Your task to perform on an android device: Search for lenovo thinkpad on bestbuy.com, select the first entry, add it to the cart, then select checkout. Image 0: 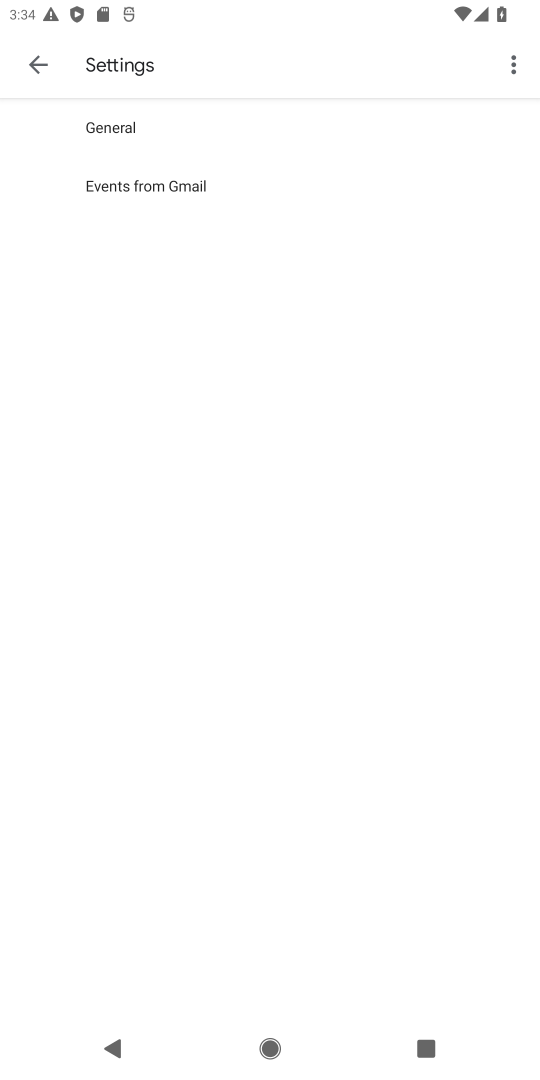
Step 0: press home button
Your task to perform on an android device: Search for lenovo thinkpad on bestbuy.com, select the first entry, add it to the cart, then select checkout. Image 1: 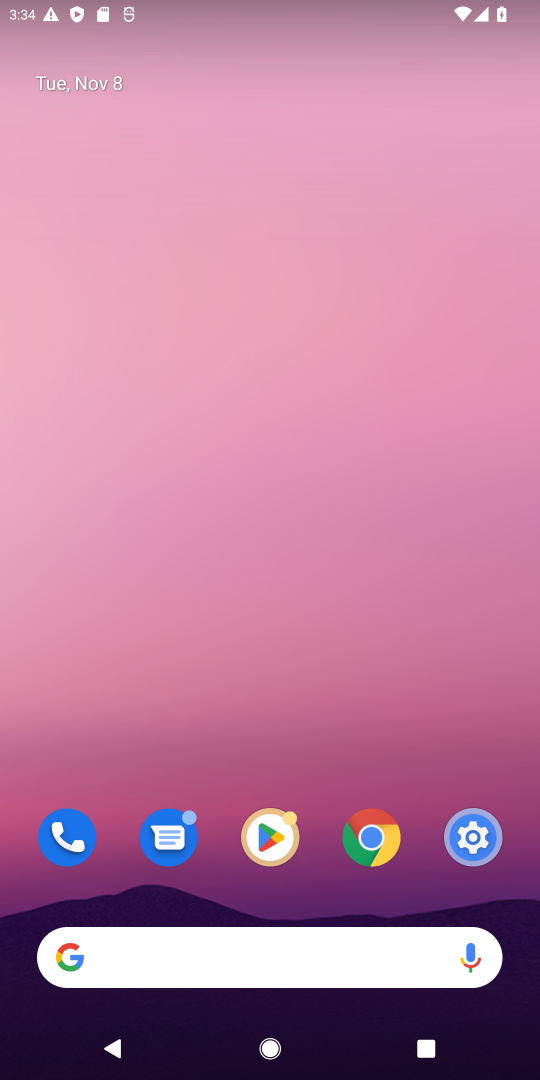
Step 1: click (381, 830)
Your task to perform on an android device: Search for lenovo thinkpad on bestbuy.com, select the first entry, add it to the cart, then select checkout. Image 2: 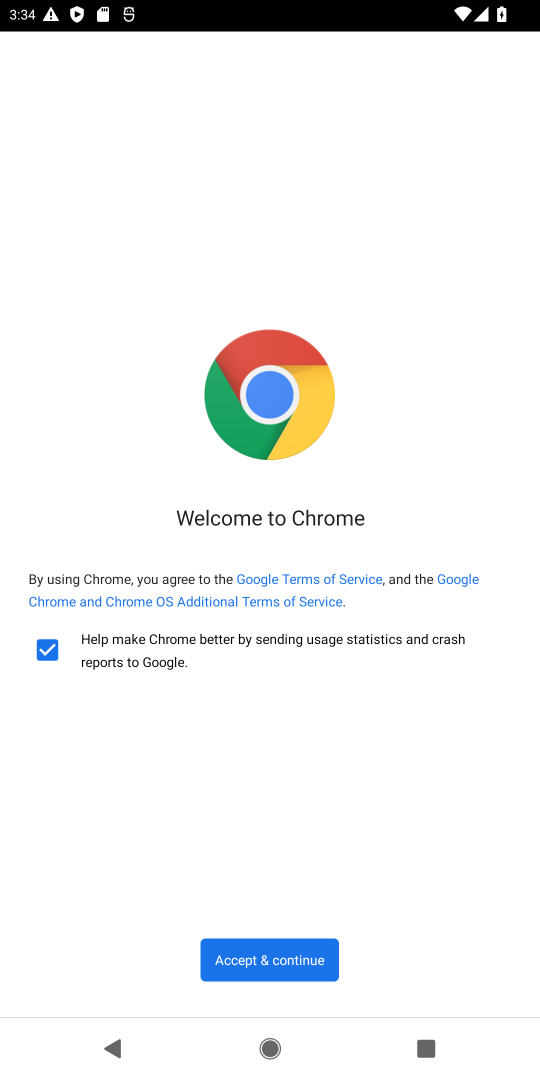
Step 2: click (242, 958)
Your task to perform on an android device: Search for lenovo thinkpad on bestbuy.com, select the first entry, add it to the cart, then select checkout. Image 3: 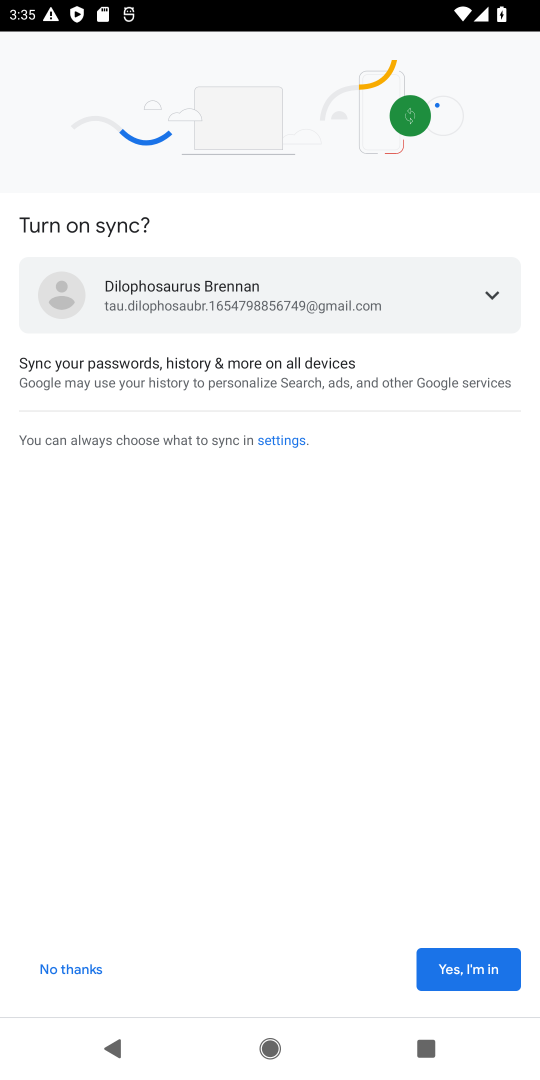
Step 3: click (496, 968)
Your task to perform on an android device: Search for lenovo thinkpad on bestbuy.com, select the first entry, add it to the cart, then select checkout. Image 4: 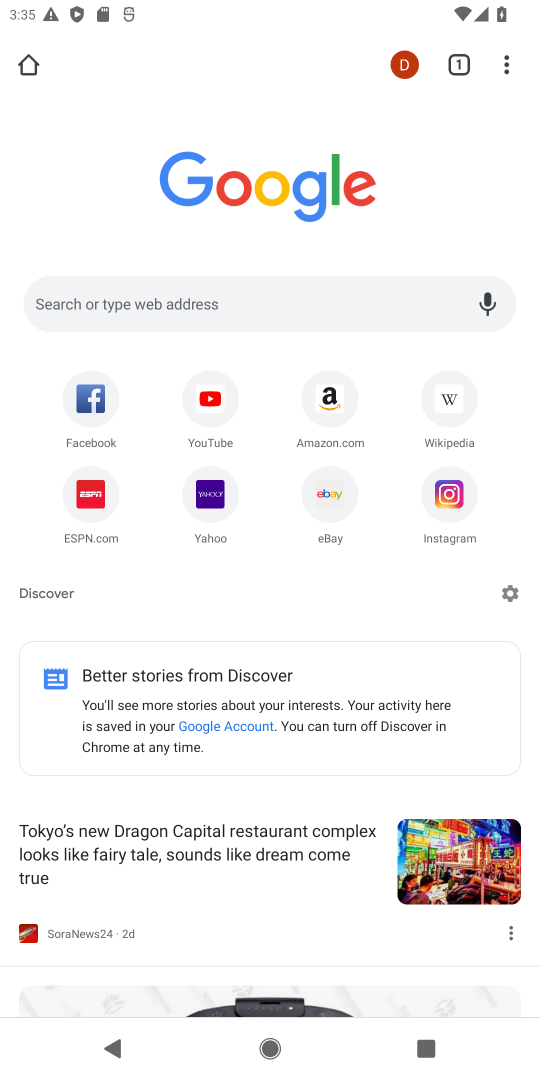
Step 4: click (214, 307)
Your task to perform on an android device: Search for lenovo thinkpad on bestbuy.com, select the first entry, add it to the cart, then select checkout. Image 5: 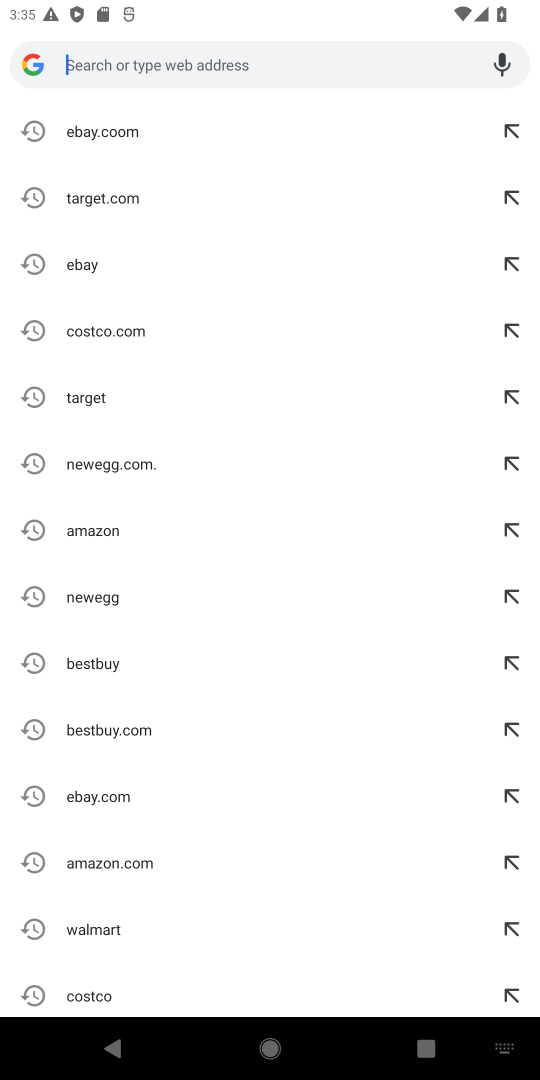
Step 5: click (91, 657)
Your task to perform on an android device: Search for lenovo thinkpad on bestbuy.com, select the first entry, add it to the cart, then select checkout. Image 6: 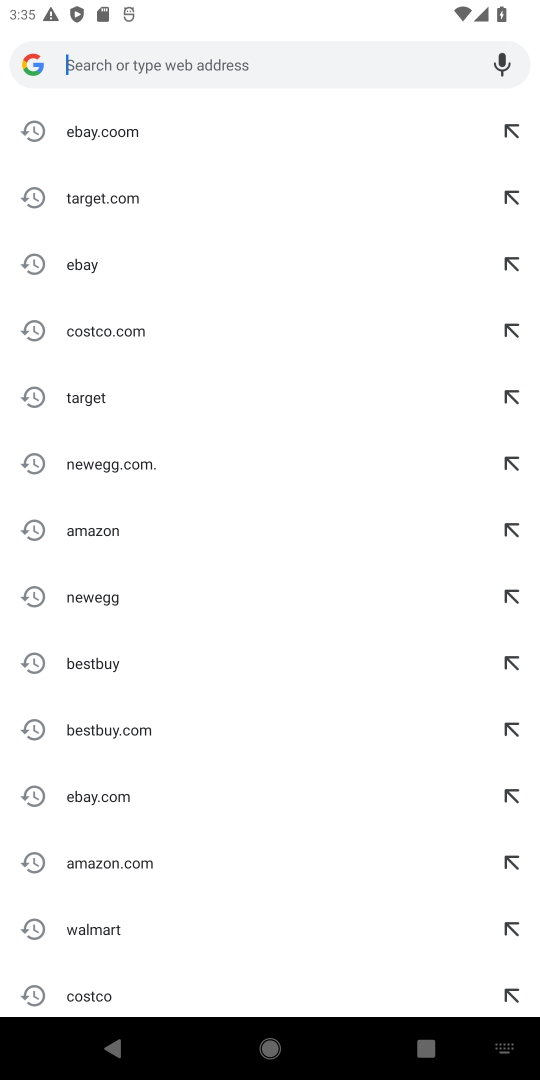
Step 6: click (91, 657)
Your task to perform on an android device: Search for lenovo thinkpad on bestbuy.com, select the first entry, add it to the cart, then select checkout. Image 7: 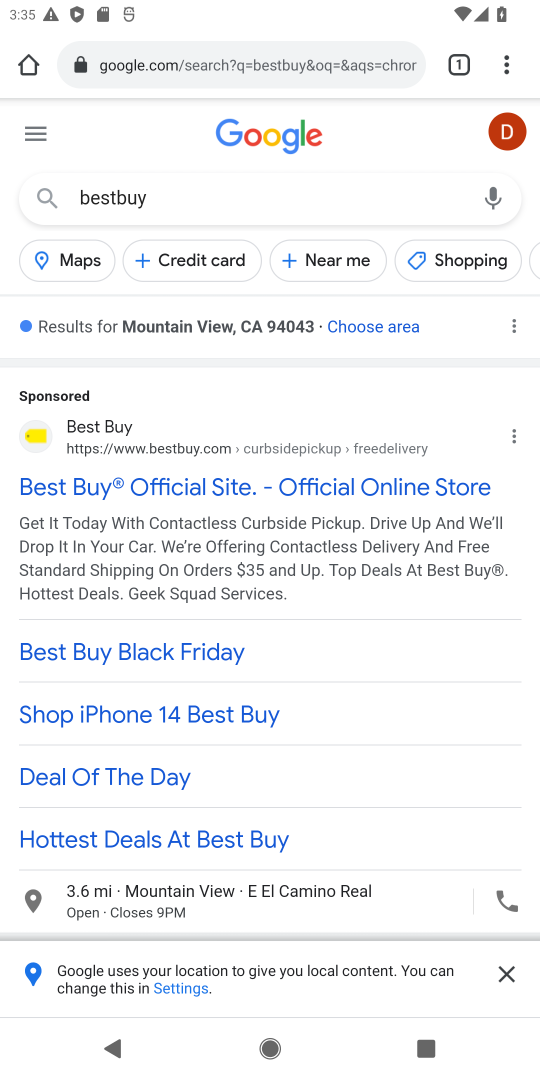
Step 7: drag from (280, 777) to (369, 46)
Your task to perform on an android device: Search for lenovo thinkpad on bestbuy.com, select the first entry, add it to the cart, then select checkout. Image 8: 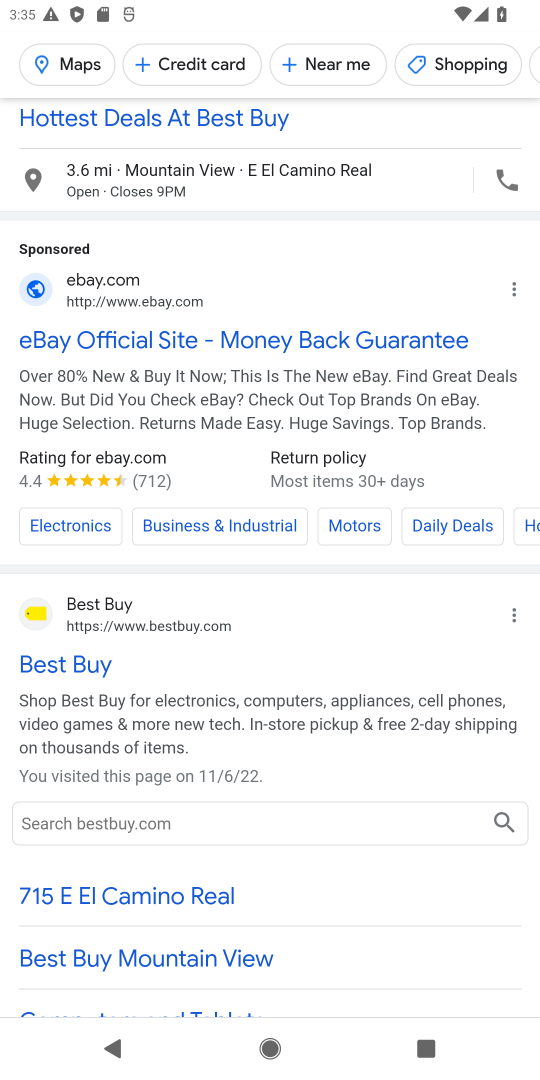
Step 8: click (84, 818)
Your task to perform on an android device: Search for lenovo thinkpad on bestbuy.com, select the first entry, add it to the cart, then select checkout. Image 9: 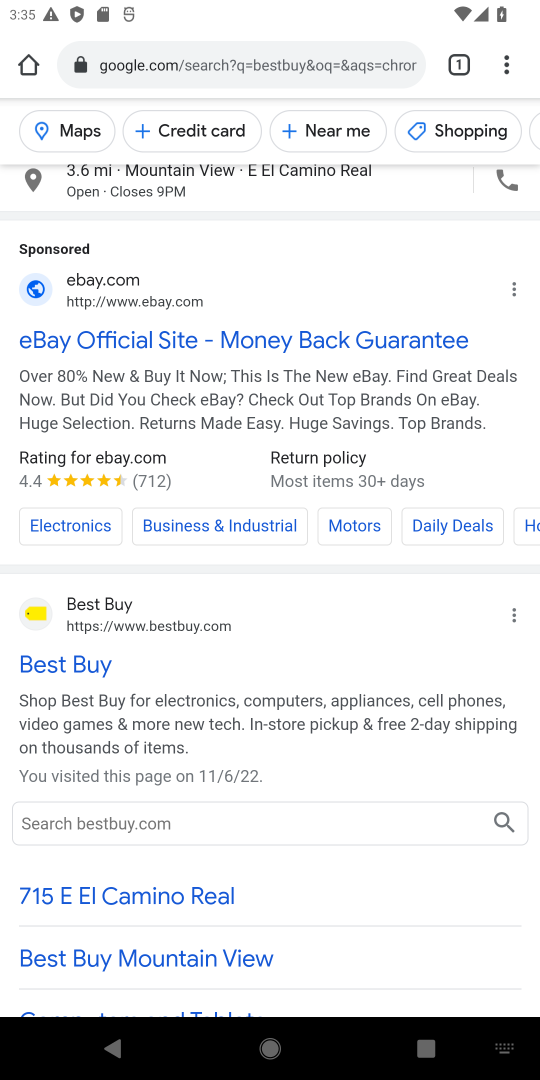
Step 9: type "lenovo thinkpad "
Your task to perform on an android device: Search for lenovo thinkpad on bestbuy.com, select the first entry, add it to the cart, then select checkout. Image 10: 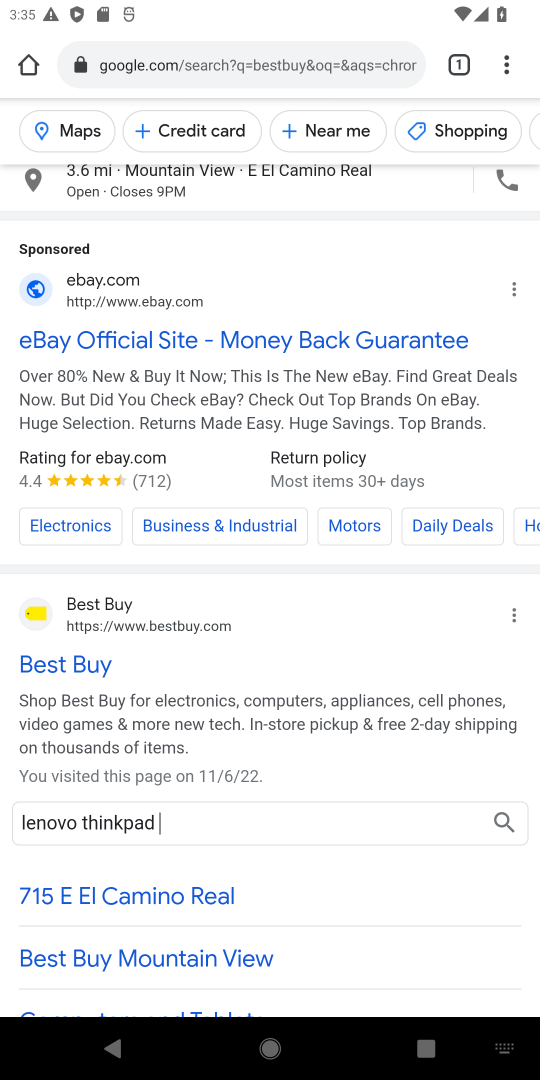
Step 10: click (499, 820)
Your task to perform on an android device: Search for lenovo thinkpad on bestbuy.com, select the first entry, add it to the cart, then select checkout. Image 11: 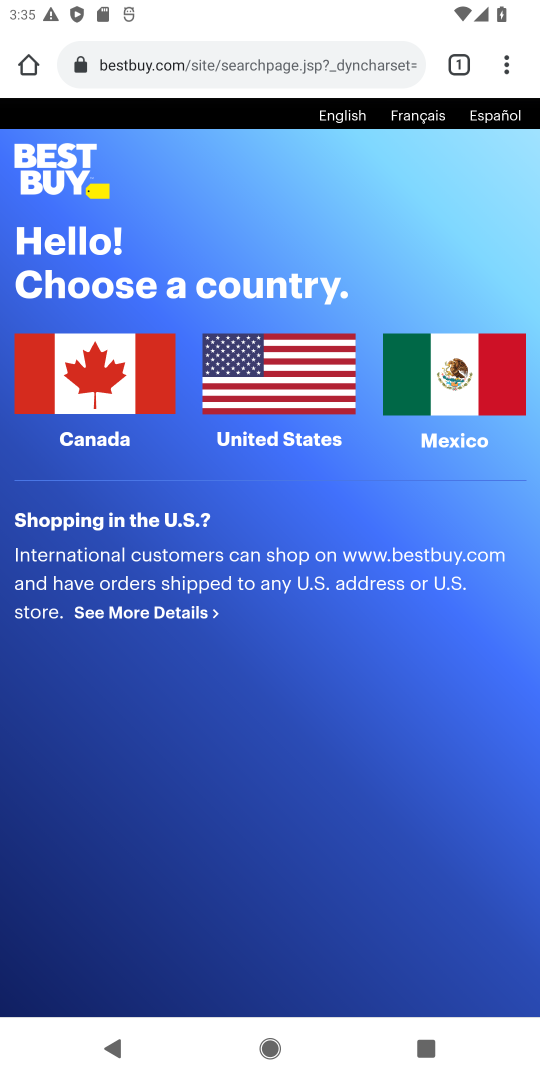
Step 11: click (287, 373)
Your task to perform on an android device: Search for lenovo thinkpad on bestbuy.com, select the first entry, add it to the cart, then select checkout. Image 12: 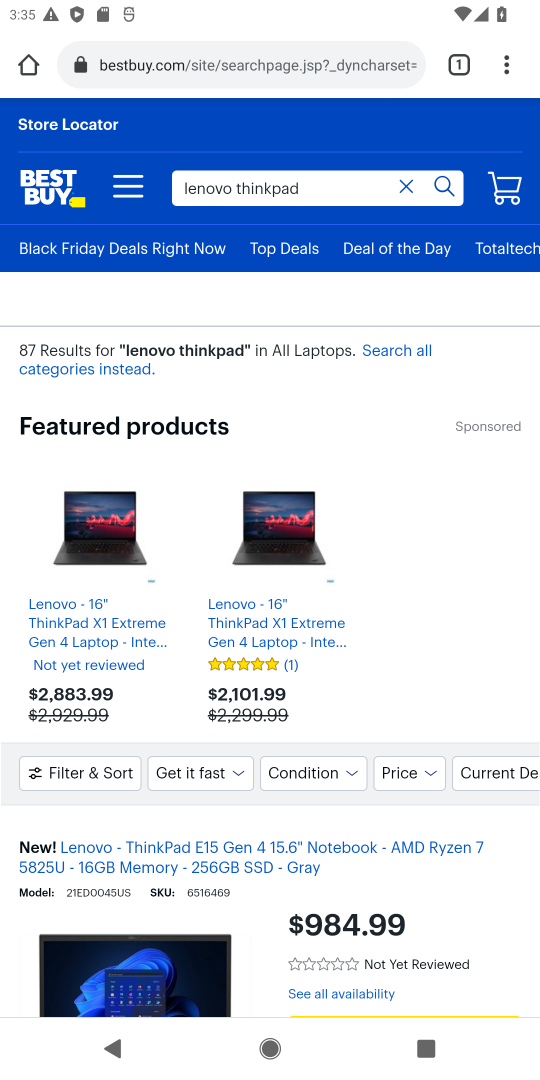
Step 12: drag from (346, 947) to (425, 416)
Your task to perform on an android device: Search for lenovo thinkpad on bestbuy.com, select the first entry, add it to the cart, then select checkout. Image 13: 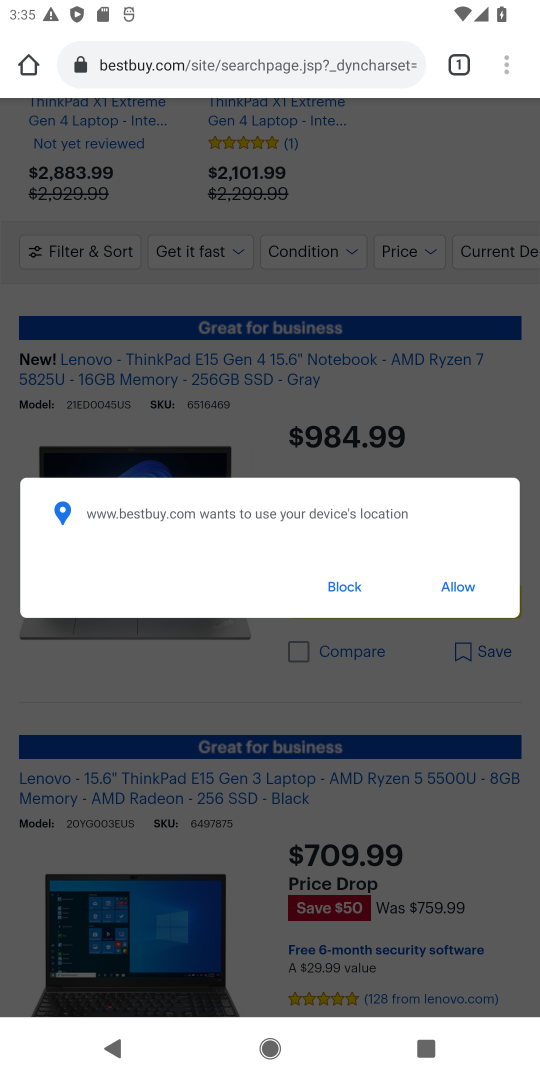
Step 13: click (433, 548)
Your task to perform on an android device: Search for lenovo thinkpad on bestbuy.com, select the first entry, add it to the cart, then select checkout. Image 14: 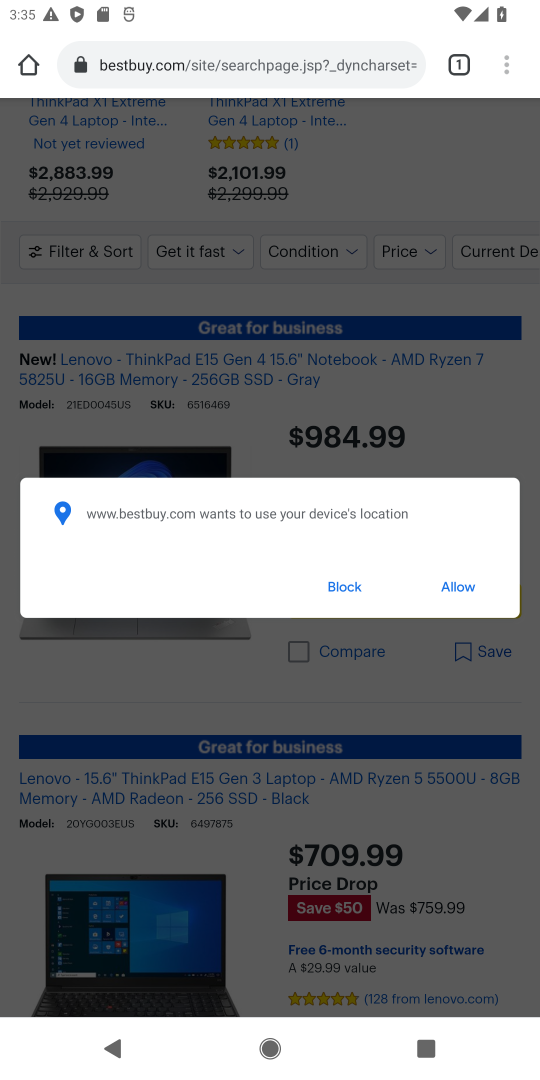
Step 14: click (352, 580)
Your task to perform on an android device: Search for lenovo thinkpad on bestbuy.com, select the first entry, add it to the cart, then select checkout. Image 15: 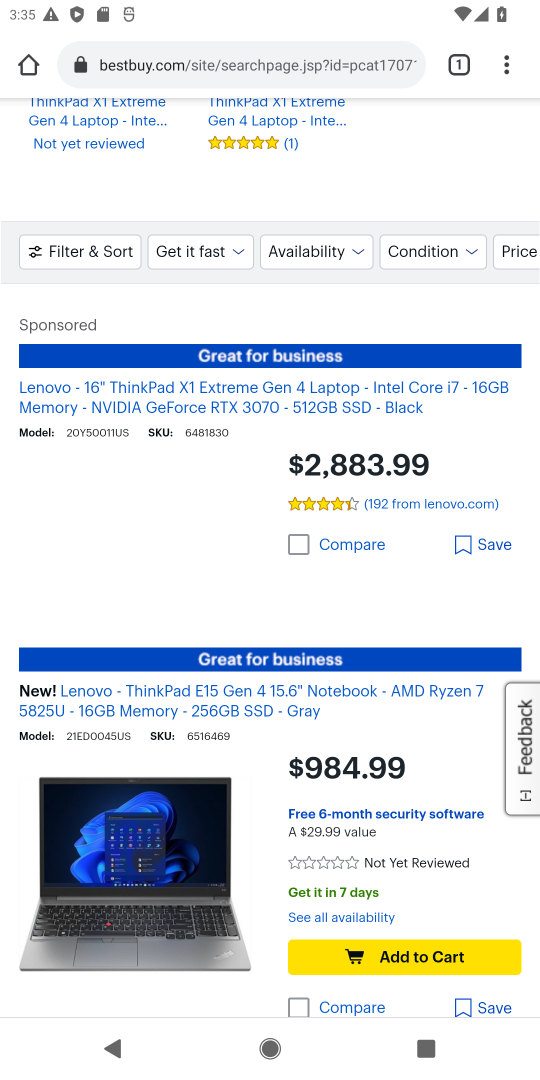
Step 15: click (396, 622)
Your task to perform on an android device: Search for lenovo thinkpad on bestbuy.com, select the first entry, add it to the cart, then select checkout. Image 16: 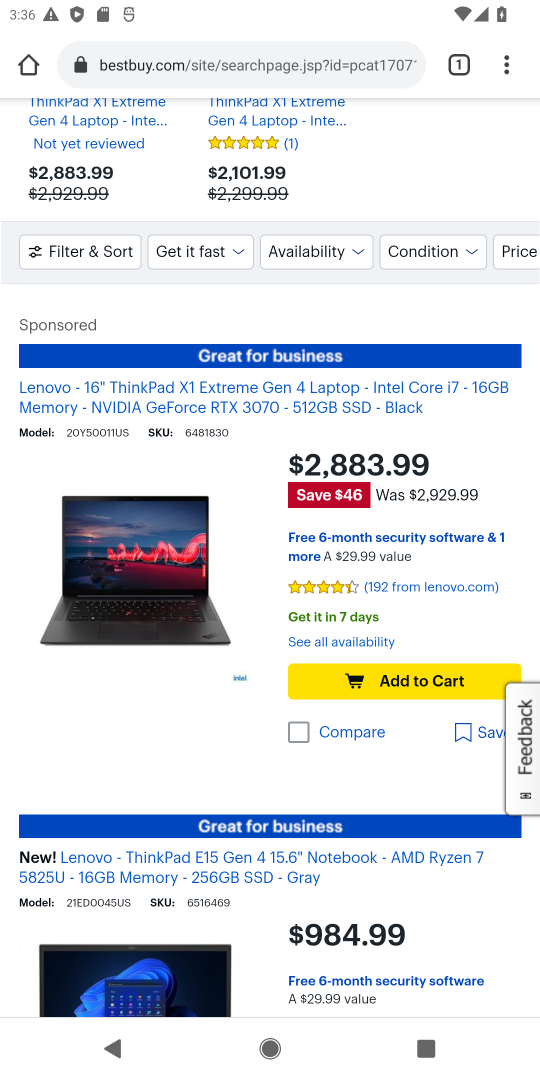
Step 16: click (395, 670)
Your task to perform on an android device: Search for lenovo thinkpad on bestbuy.com, select the first entry, add it to the cart, then select checkout. Image 17: 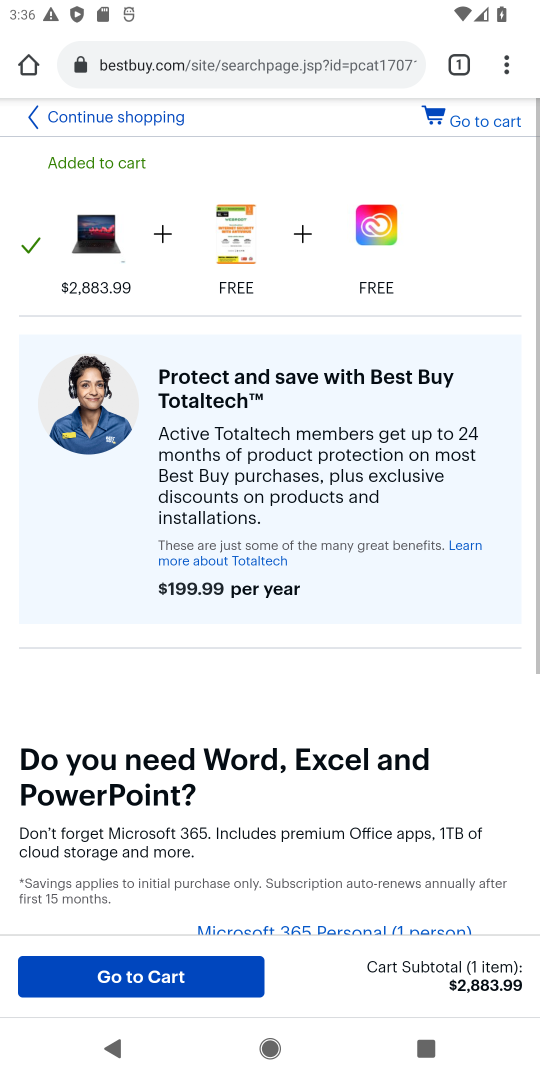
Step 17: click (488, 116)
Your task to perform on an android device: Search for lenovo thinkpad on bestbuy.com, select the first entry, add it to the cart, then select checkout. Image 18: 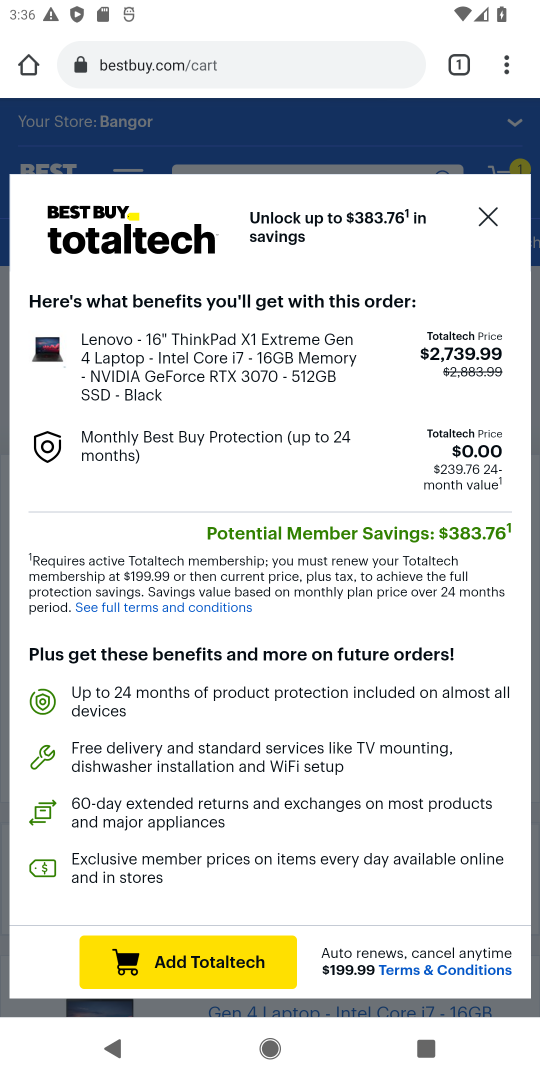
Step 18: click (487, 208)
Your task to perform on an android device: Search for lenovo thinkpad on bestbuy.com, select the first entry, add it to the cart, then select checkout. Image 19: 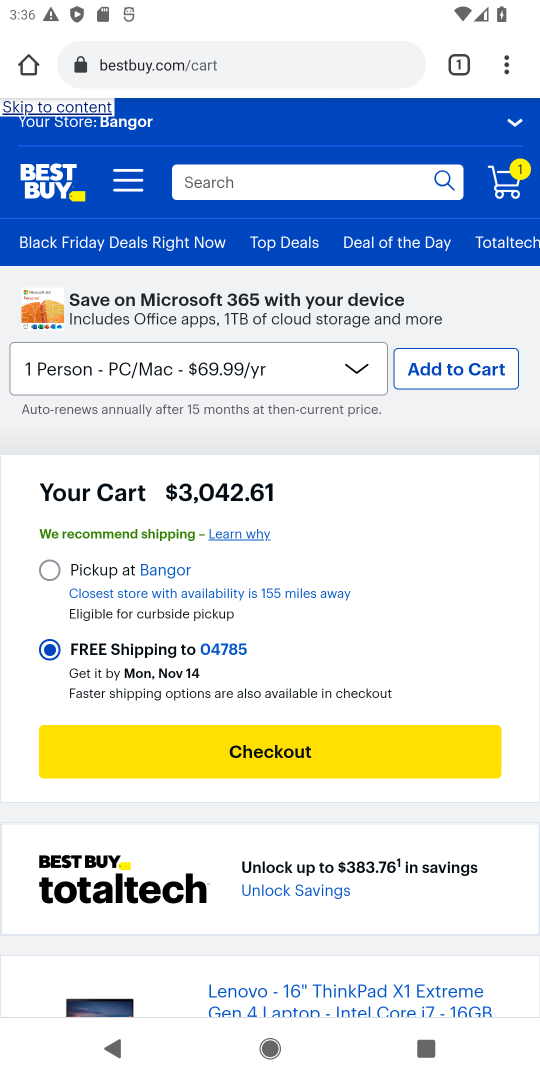
Step 19: click (243, 755)
Your task to perform on an android device: Search for lenovo thinkpad on bestbuy.com, select the first entry, add it to the cart, then select checkout. Image 20: 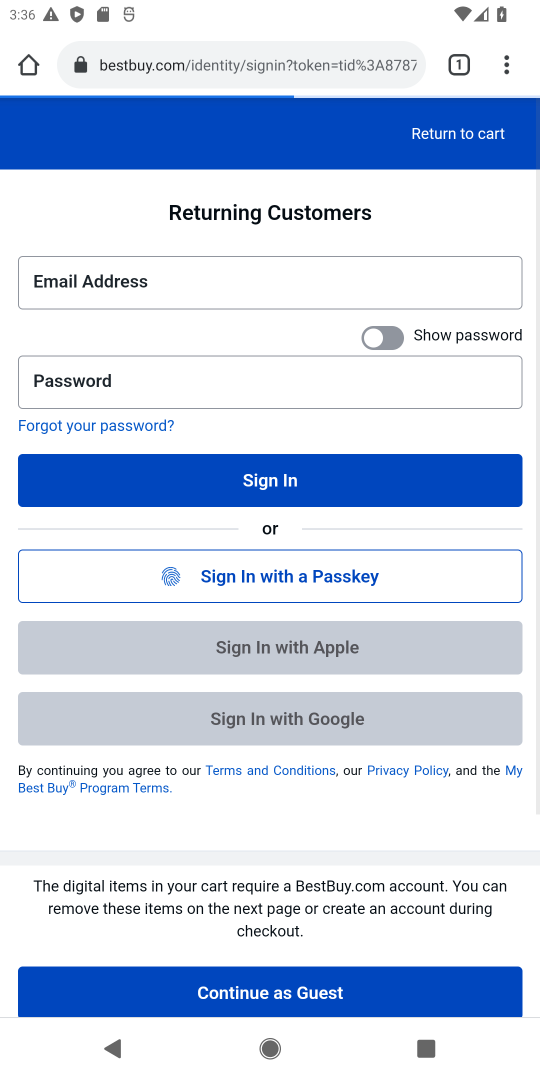
Step 20: task complete